Your task to perform on an android device: turn on improve location accuracy Image 0: 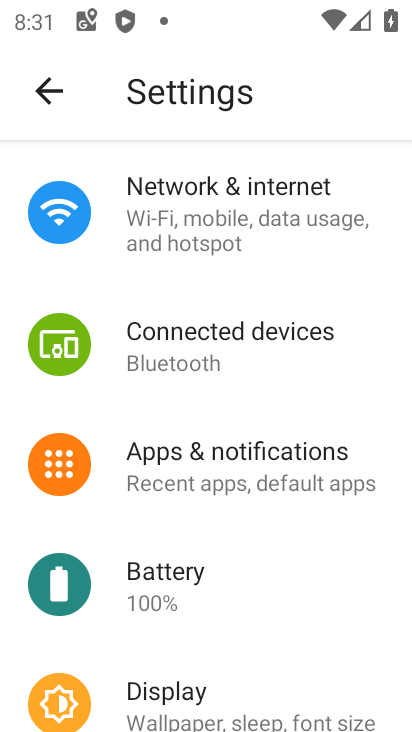
Step 0: drag from (219, 653) to (282, 150)
Your task to perform on an android device: turn on improve location accuracy Image 1: 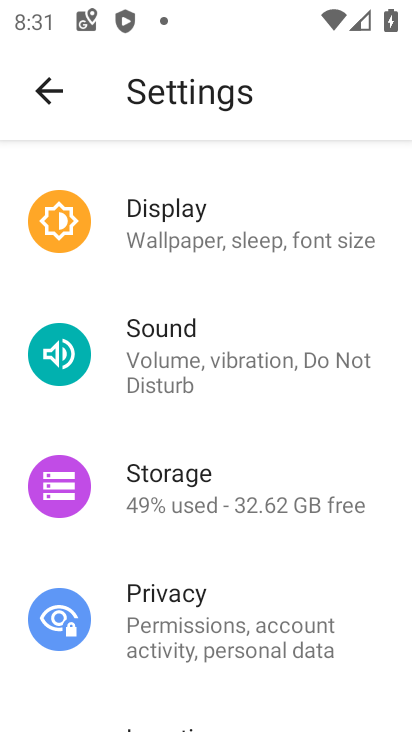
Step 1: drag from (184, 624) to (237, 180)
Your task to perform on an android device: turn on improve location accuracy Image 2: 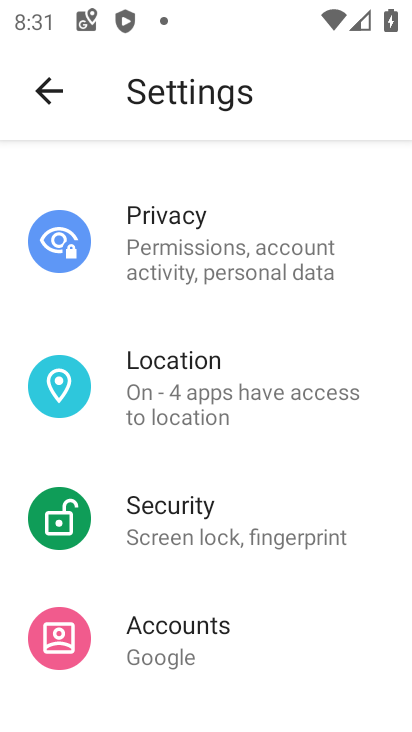
Step 2: click (175, 394)
Your task to perform on an android device: turn on improve location accuracy Image 3: 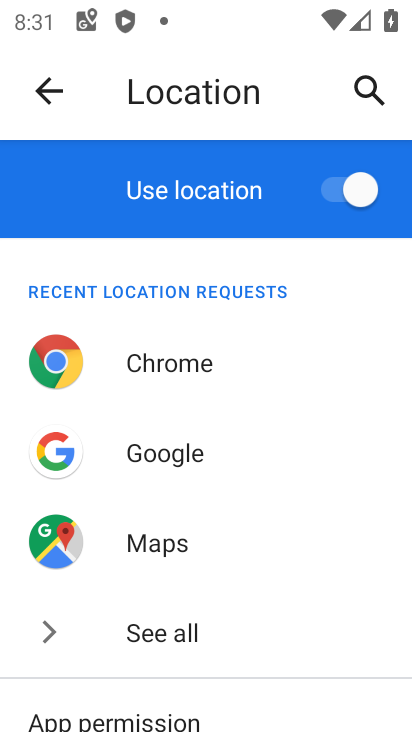
Step 3: drag from (240, 606) to (280, 191)
Your task to perform on an android device: turn on improve location accuracy Image 4: 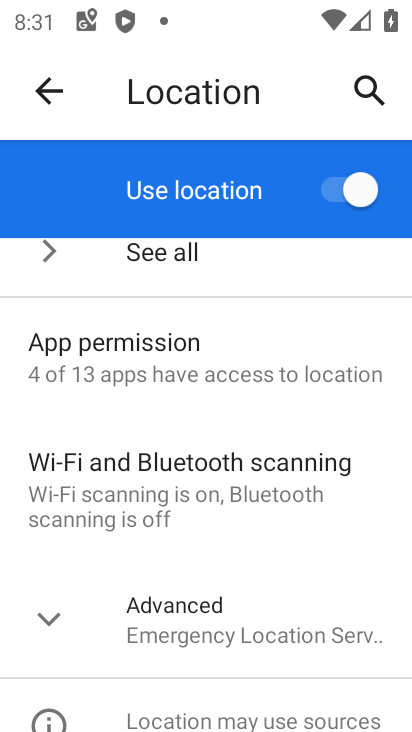
Step 4: click (190, 610)
Your task to perform on an android device: turn on improve location accuracy Image 5: 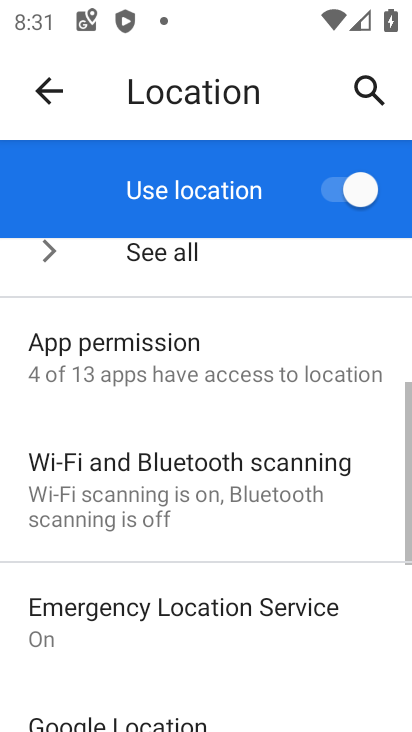
Step 5: drag from (189, 653) to (264, 271)
Your task to perform on an android device: turn on improve location accuracy Image 6: 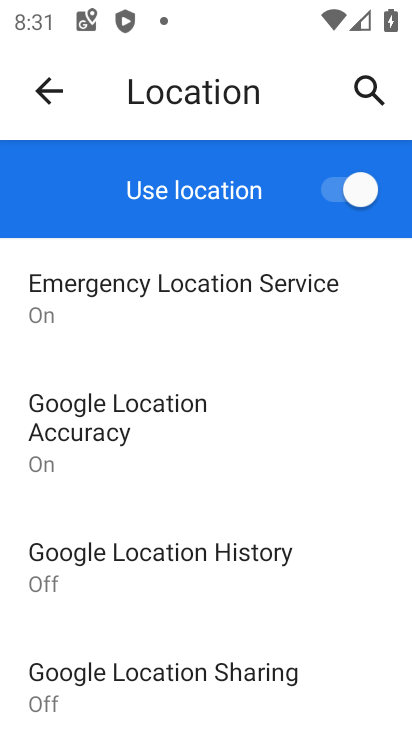
Step 6: click (115, 411)
Your task to perform on an android device: turn on improve location accuracy Image 7: 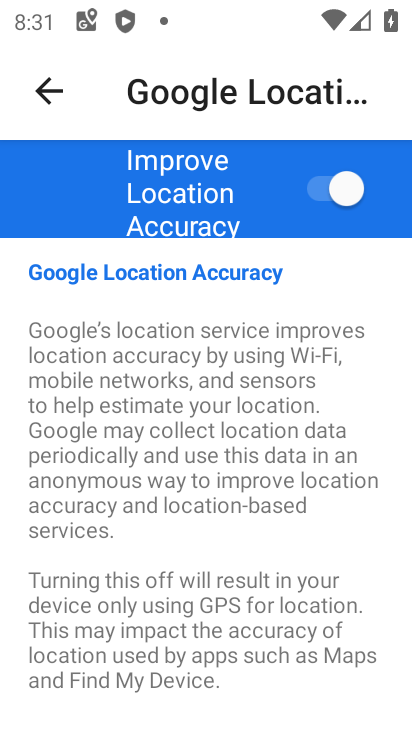
Step 7: task complete